Your task to perform on an android device: toggle wifi Image 0: 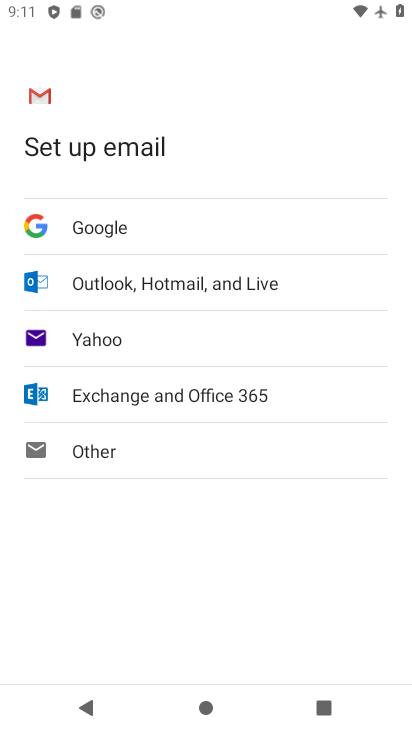
Step 0: press home button
Your task to perform on an android device: toggle wifi Image 1: 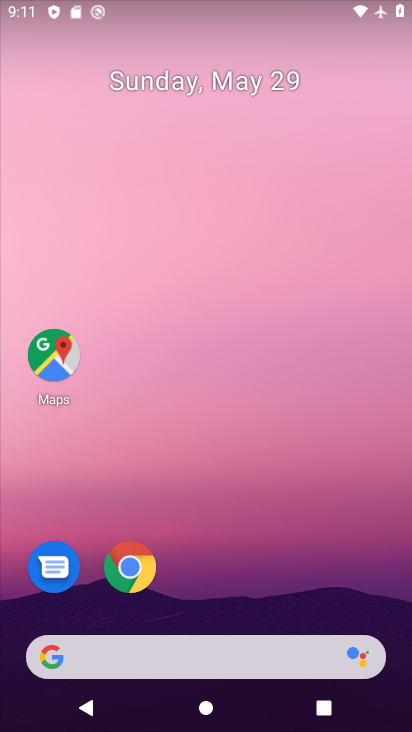
Step 1: drag from (392, 640) to (326, 60)
Your task to perform on an android device: toggle wifi Image 2: 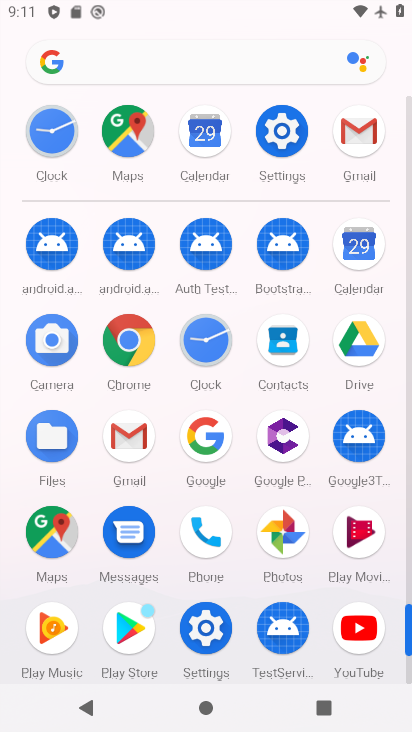
Step 2: click (208, 632)
Your task to perform on an android device: toggle wifi Image 3: 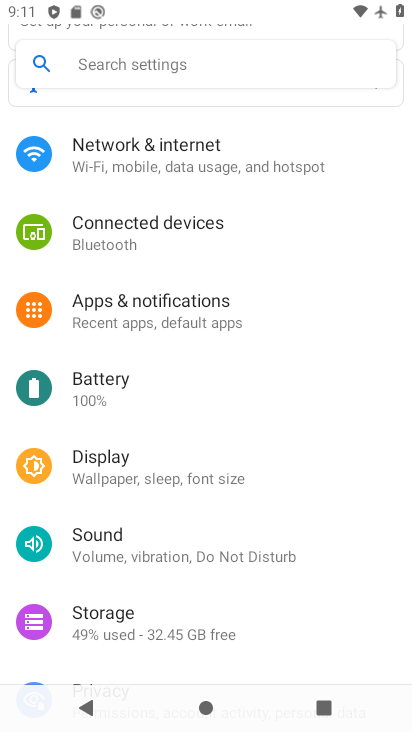
Step 3: click (94, 157)
Your task to perform on an android device: toggle wifi Image 4: 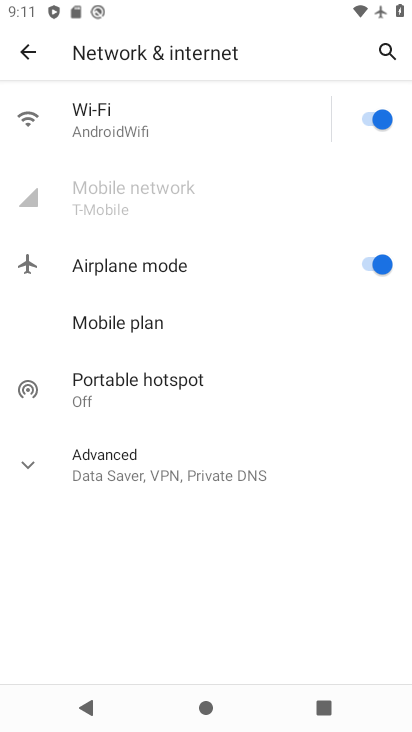
Step 4: click (366, 121)
Your task to perform on an android device: toggle wifi Image 5: 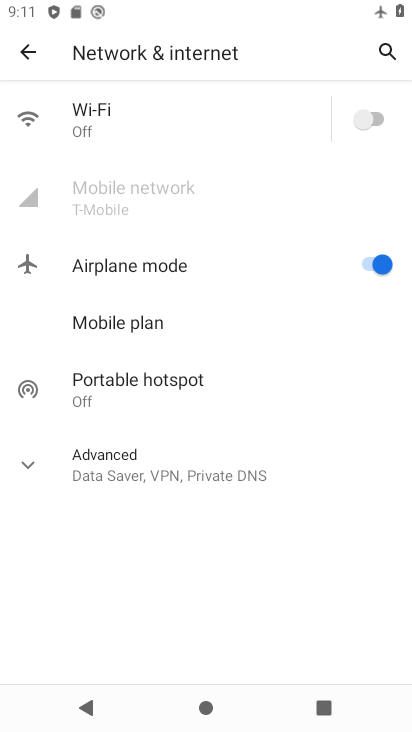
Step 5: task complete